Your task to perform on an android device: Show the shopping cart on walmart.com. Search for macbook pro 13 inch on walmart.com, select the first entry, and add it to the cart. Image 0: 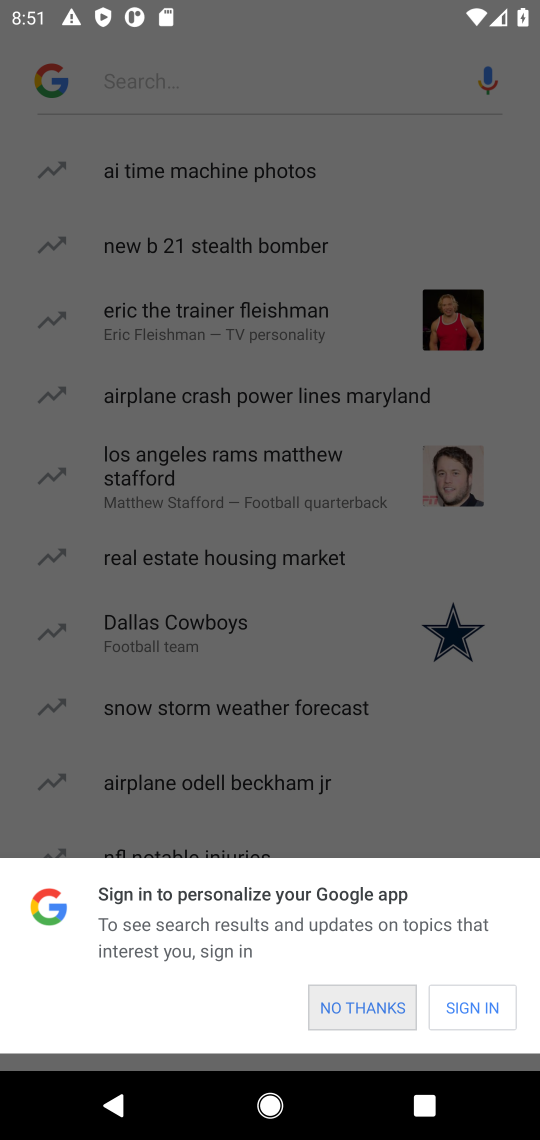
Step 0: press home button
Your task to perform on an android device: Show the shopping cart on walmart.com. Search for macbook pro 13 inch on walmart.com, select the first entry, and add it to the cart. Image 1: 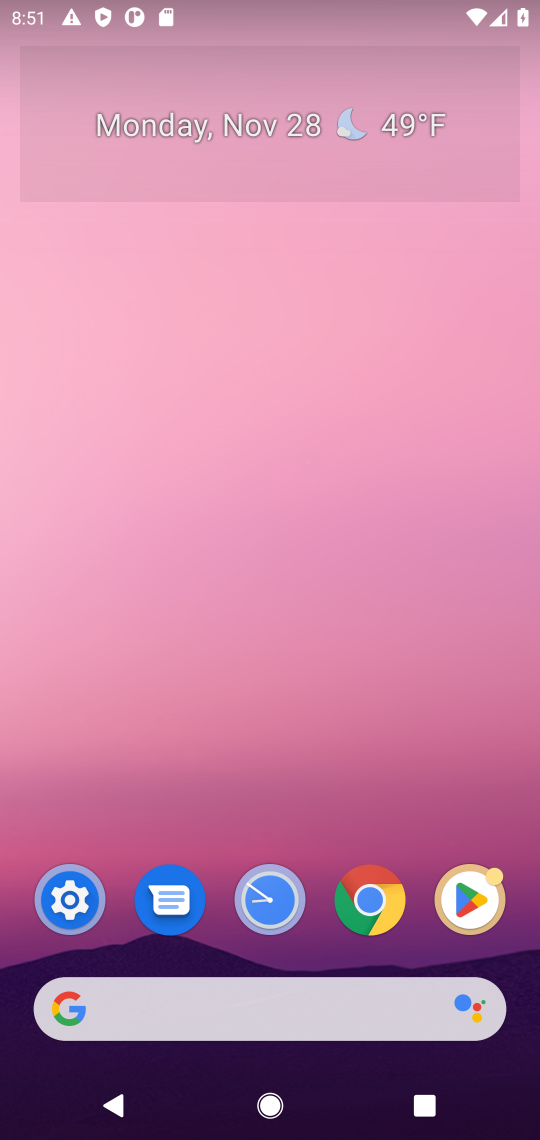
Step 1: click (397, 992)
Your task to perform on an android device: Show the shopping cart on walmart.com. Search for macbook pro 13 inch on walmart.com, select the first entry, and add it to the cart. Image 2: 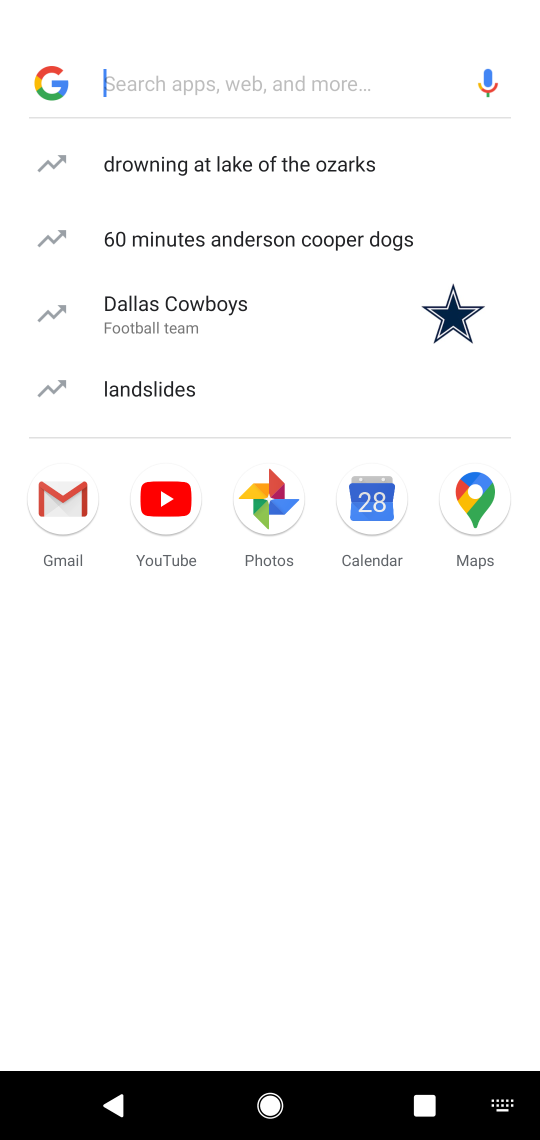
Step 2: task complete